Your task to perform on an android device: turn off picture-in-picture Image 0: 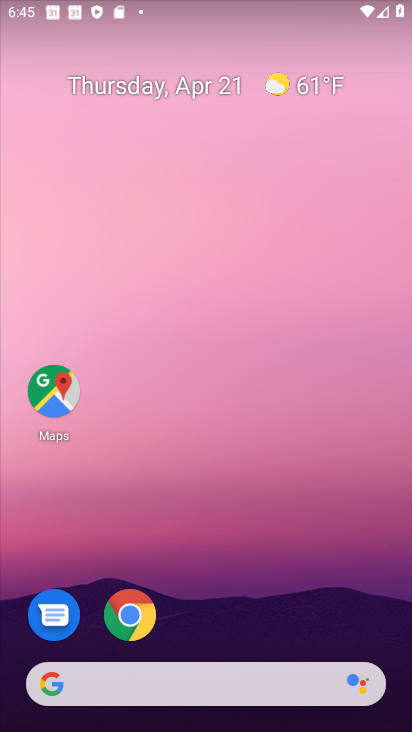
Step 0: drag from (173, 583) to (231, 106)
Your task to perform on an android device: turn off picture-in-picture Image 1: 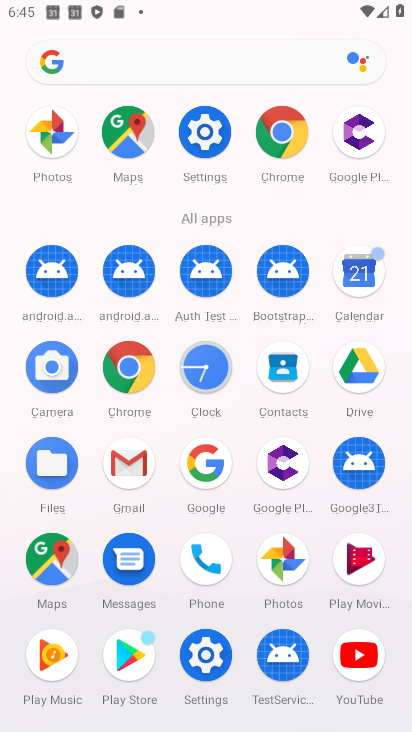
Step 1: click (175, 669)
Your task to perform on an android device: turn off picture-in-picture Image 2: 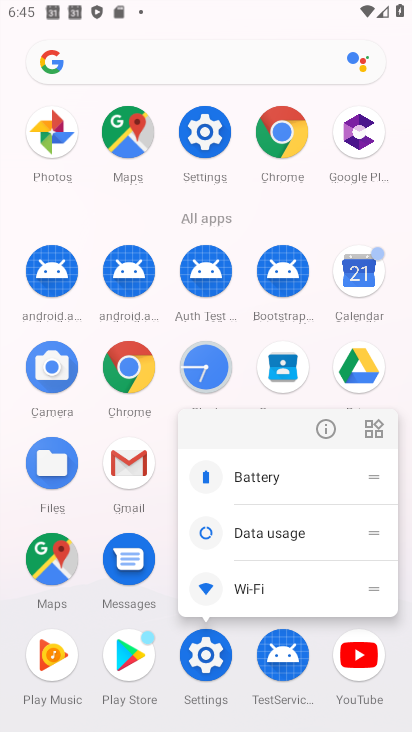
Step 2: click (315, 417)
Your task to perform on an android device: turn off picture-in-picture Image 3: 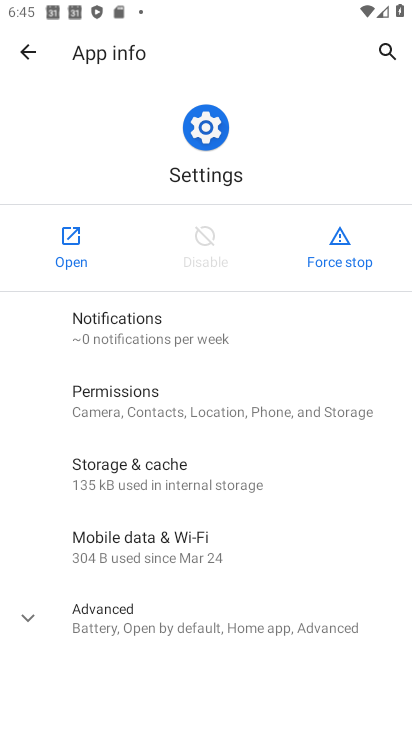
Step 3: click (71, 246)
Your task to perform on an android device: turn off picture-in-picture Image 4: 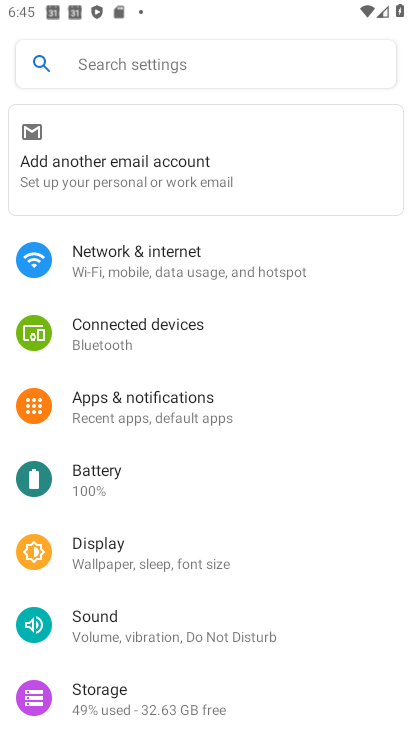
Step 4: drag from (305, 590) to (282, 245)
Your task to perform on an android device: turn off picture-in-picture Image 5: 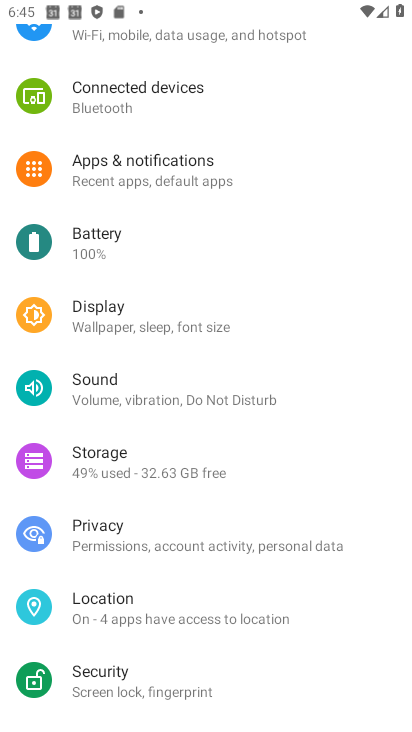
Step 5: drag from (157, 542) to (297, 730)
Your task to perform on an android device: turn off picture-in-picture Image 6: 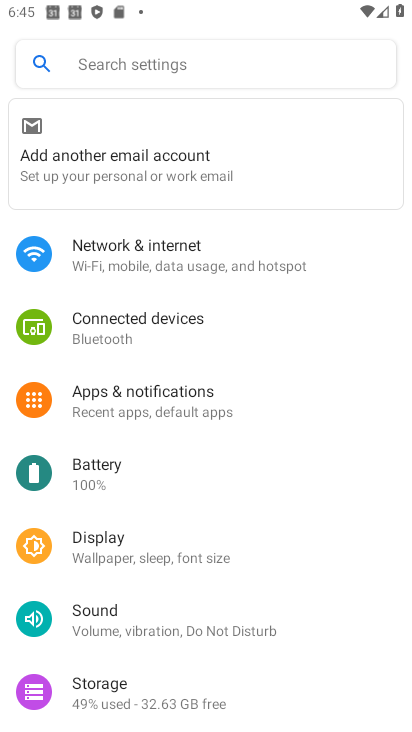
Step 6: click (210, 403)
Your task to perform on an android device: turn off picture-in-picture Image 7: 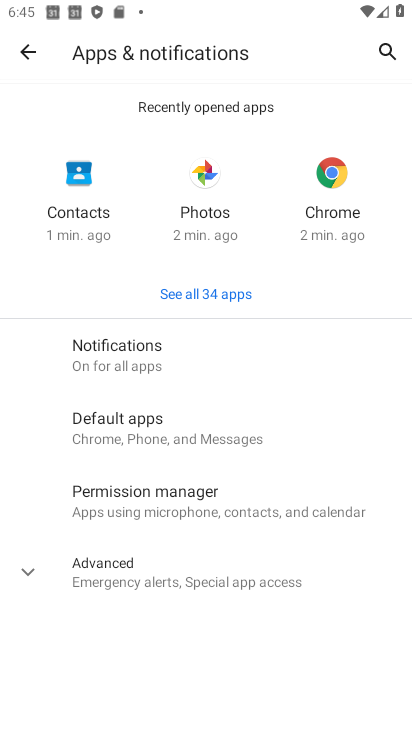
Step 7: click (142, 350)
Your task to perform on an android device: turn off picture-in-picture Image 8: 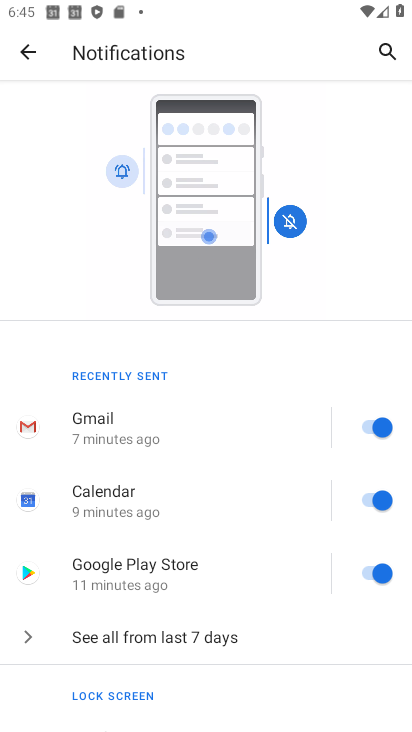
Step 8: drag from (223, 610) to (368, 78)
Your task to perform on an android device: turn off picture-in-picture Image 9: 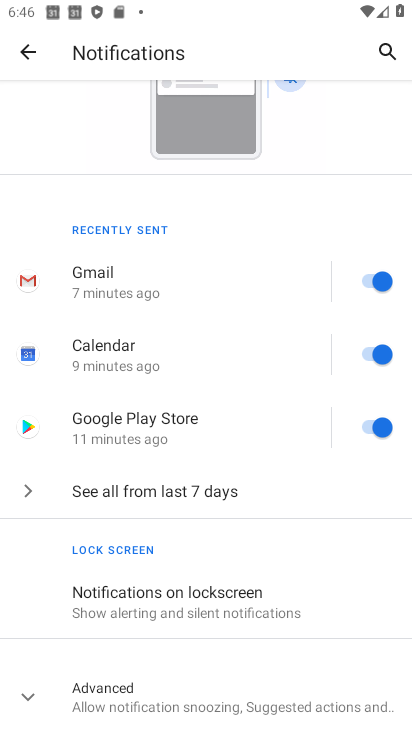
Step 9: drag from (242, 614) to (310, 279)
Your task to perform on an android device: turn off picture-in-picture Image 10: 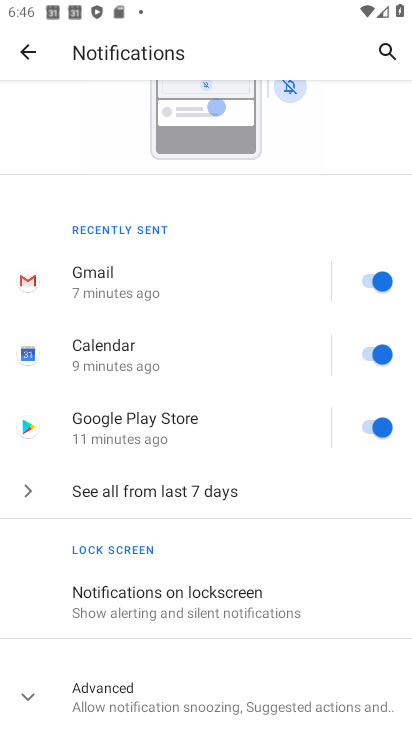
Step 10: click (18, 58)
Your task to perform on an android device: turn off picture-in-picture Image 11: 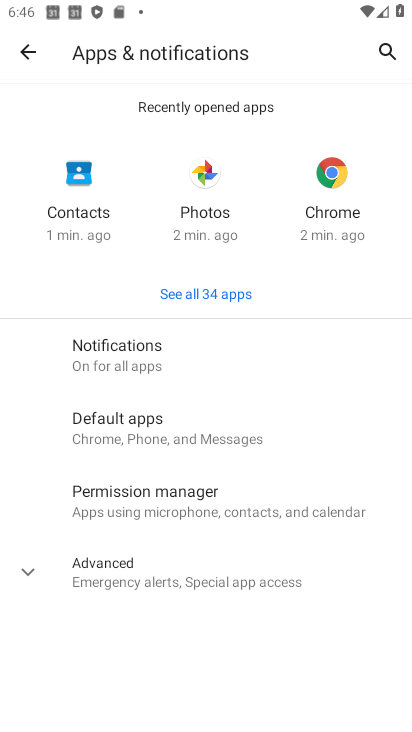
Step 11: drag from (201, 623) to (246, 290)
Your task to perform on an android device: turn off picture-in-picture Image 12: 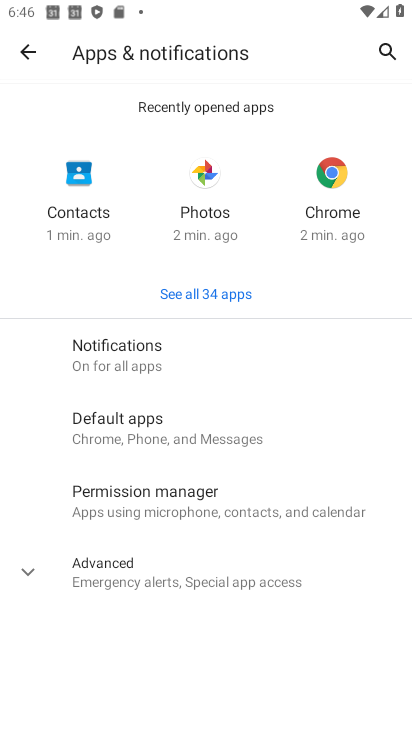
Step 12: click (106, 604)
Your task to perform on an android device: turn off picture-in-picture Image 13: 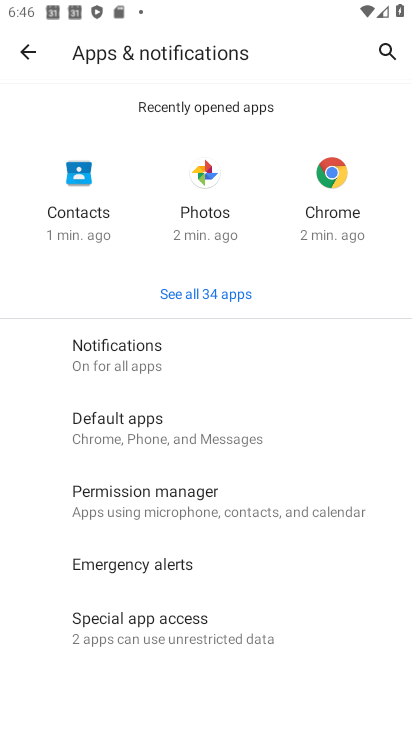
Step 13: drag from (186, 607) to (240, 384)
Your task to perform on an android device: turn off picture-in-picture Image 14: 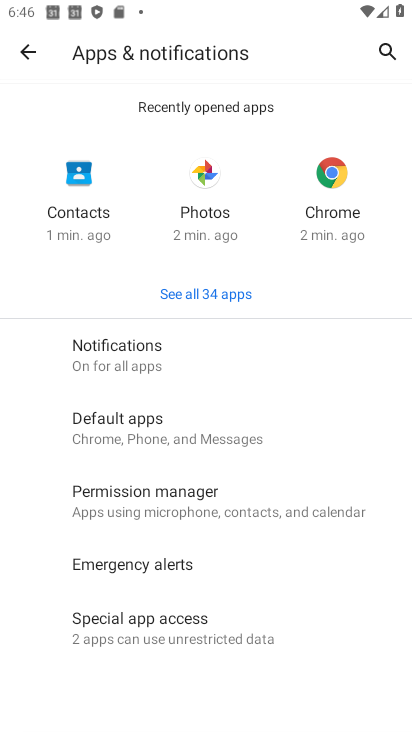
Step 14: click (212, 605)
Your task to perform on an android device: turn off picture-in-picture Image 15: 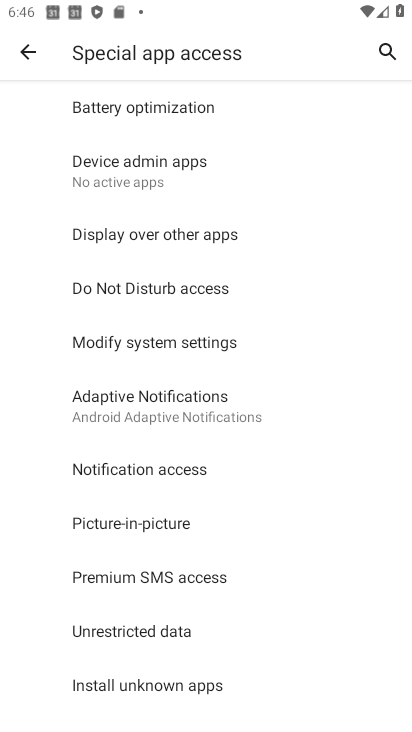
Step 15: click (163, 512)
Your task to perform on an android device: turn off picture-in-picture Image 16: 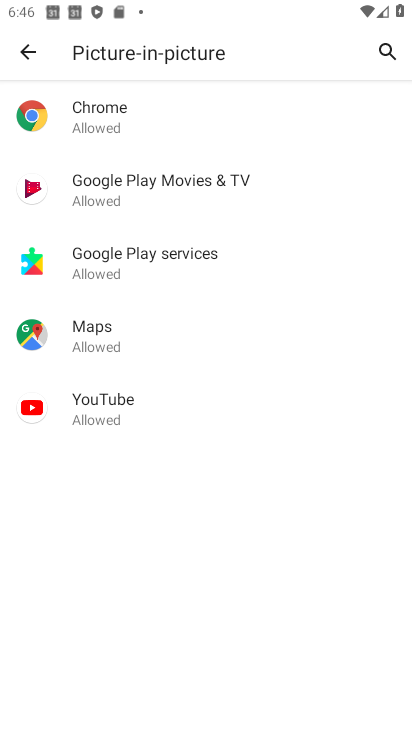
Step 16: task complete